Your task to perform on an android device: turn on improve location accuracy Image 0: 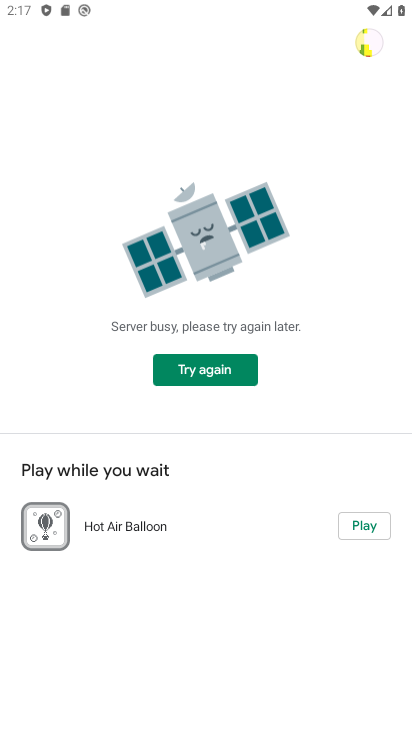
Step 0: press home button
Your task to perform on an android device: turn on improve location accuracy Image 1: 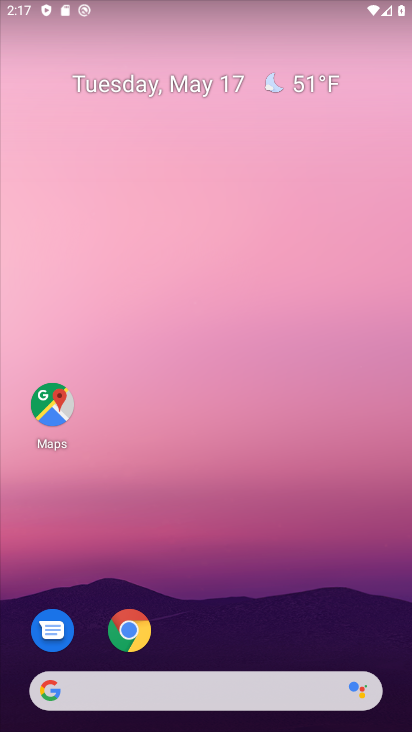
Step 1: drag from (238, 242) to (294, 55)
Your task to perform on an android device: turn on improve location accuracy Image 2: 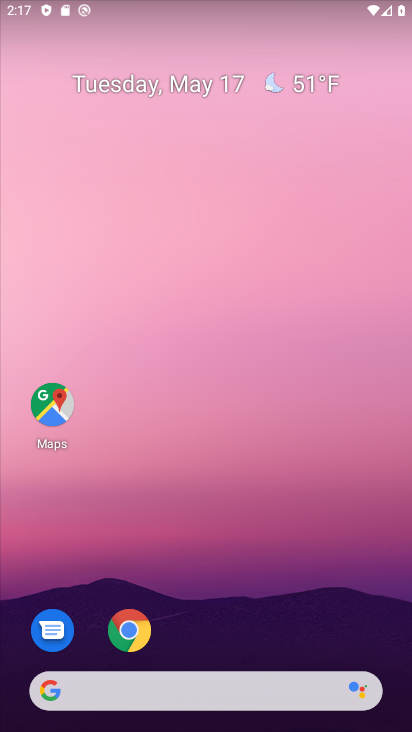
Step 2: drag from (191, 603) to (228, 0)
Your task to perform on an android device: turn on improve location accuracy Image 3: 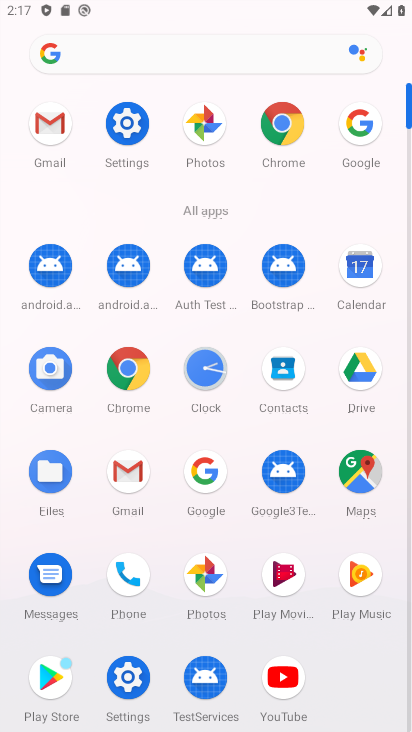
Step 3: click (121, 175)
Your task to perform on an android device: turn on improve location accuracy Image 4: 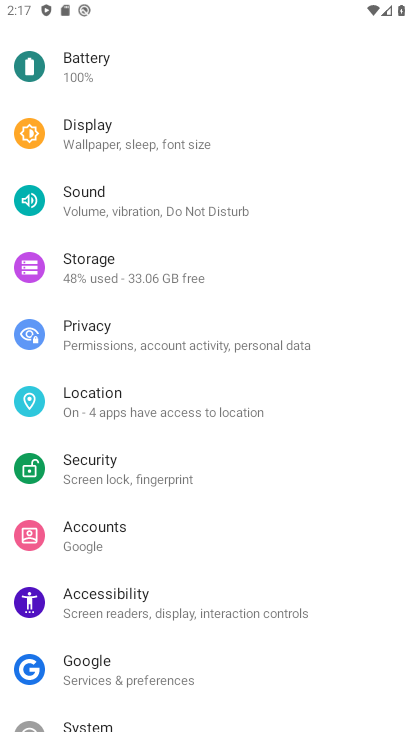
Step 4: click (66, 403)
Your task to perform on an android device: turn on improve location accuracy Image 5: 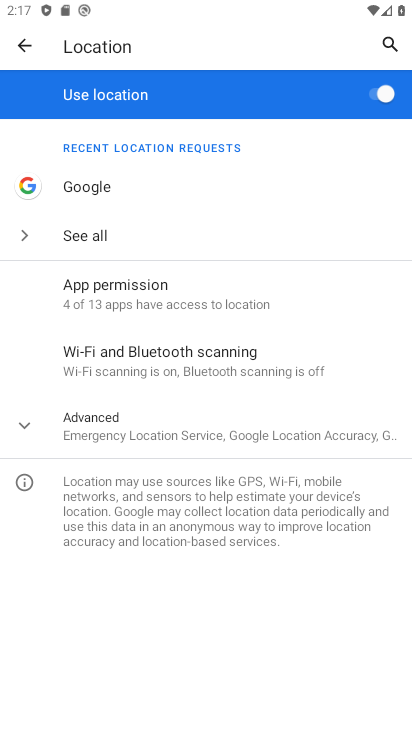
Step 5: press home button
Your task to perform on an android device: turn on improve location accuracy Image 6: 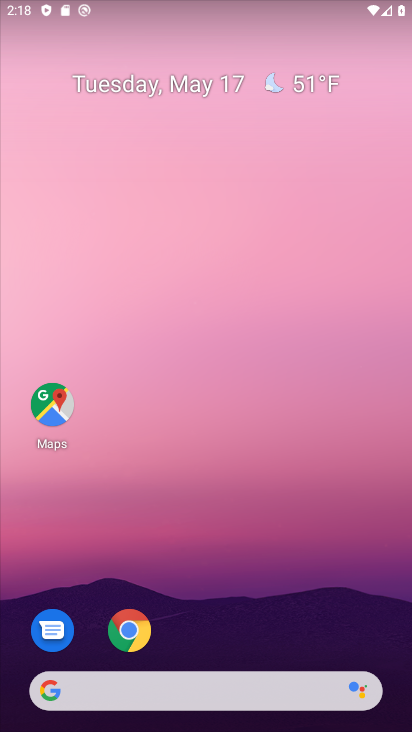
Step 6: drag from (239, 589) to (239, 130)
Your task to perform on an android device: turn on improve location accuracy Image 7: 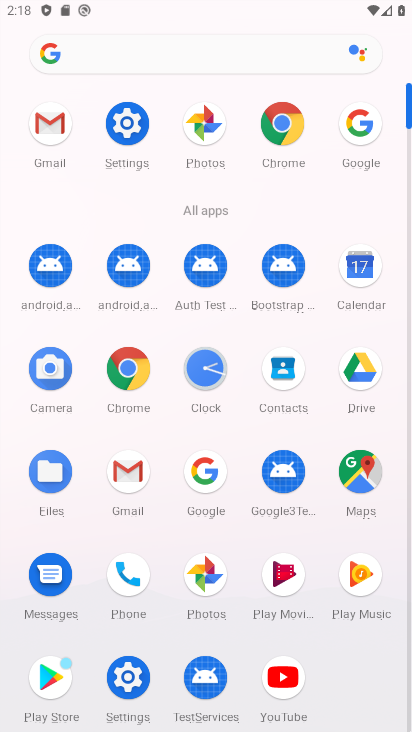
Step 7: click (129, 152)
Your task to perform on an android device: turn on improve location accuracy Image 8: 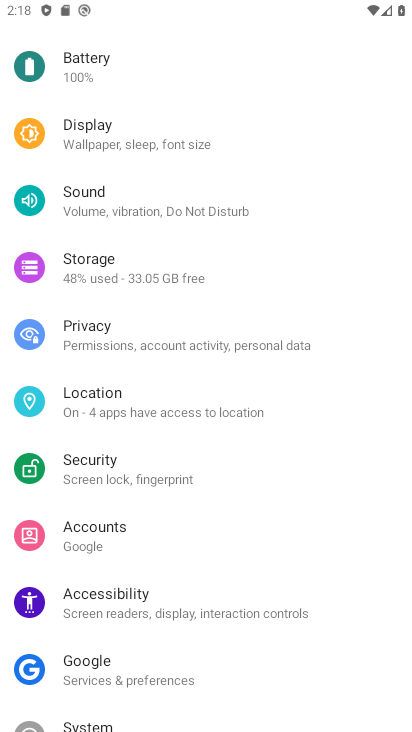
Step 8: drag from (125, 626) to (132, 282)
Your task to perform on an android device: turn on improve location accuracy Image 9: 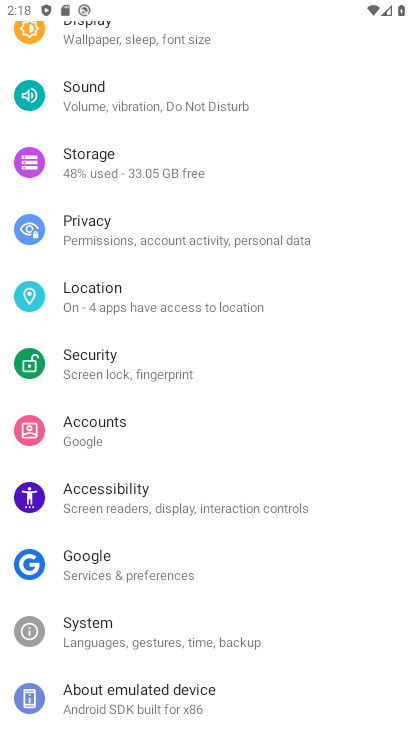
Step 9: click (105, 296)
Your task to perform on an android device: turn on improve location accuracy Image 10: 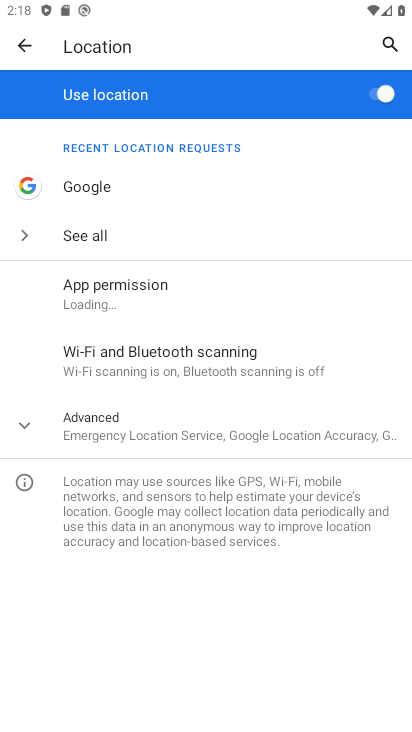
Step 10: click (100, 405)
Your task to perform on an android device: turn on improve location accuracy Image 11: 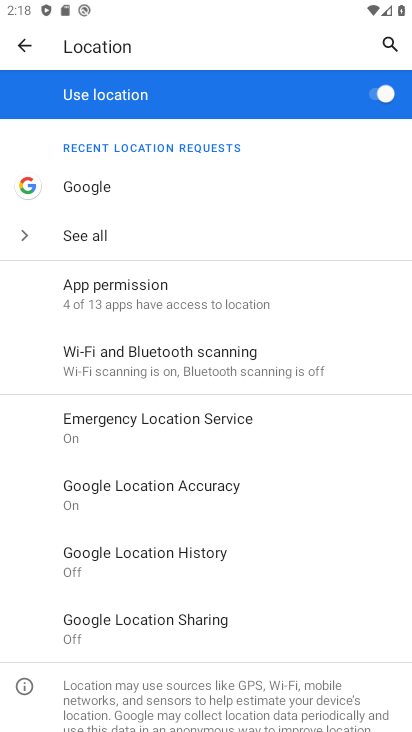
Step 11: click (134, 486)
Your task to perform on an android device: turn on improve location accuracy Image 12: 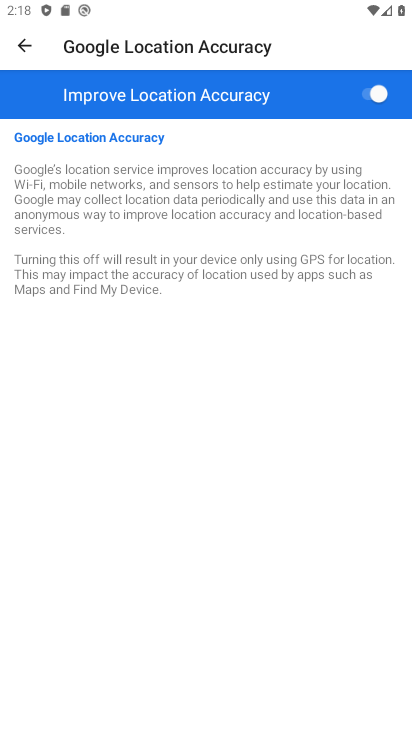
Step 12: task complete